Your task to perform on an android device: see creations saved in the google photos Image 0: 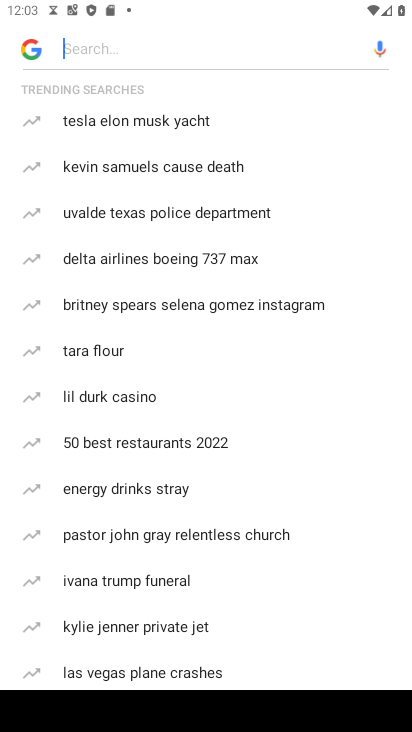
Step 0: press back button
Your task to perform on an android device: see creations saved in the google photos Image 1: 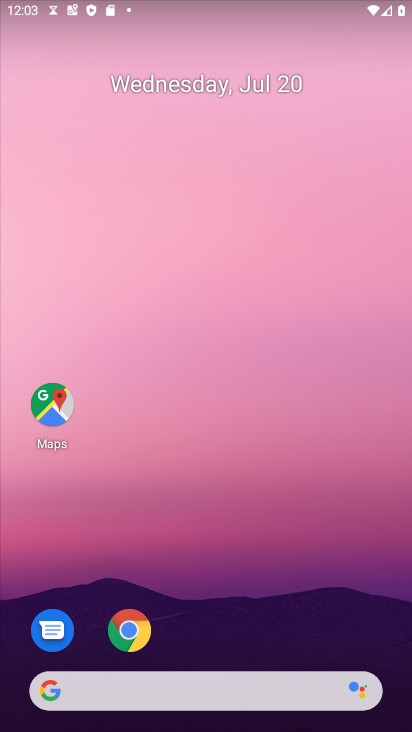
Step 1: click (178, 190)
Your task to perform on an android device: see creations saved in the google photos Image 2: 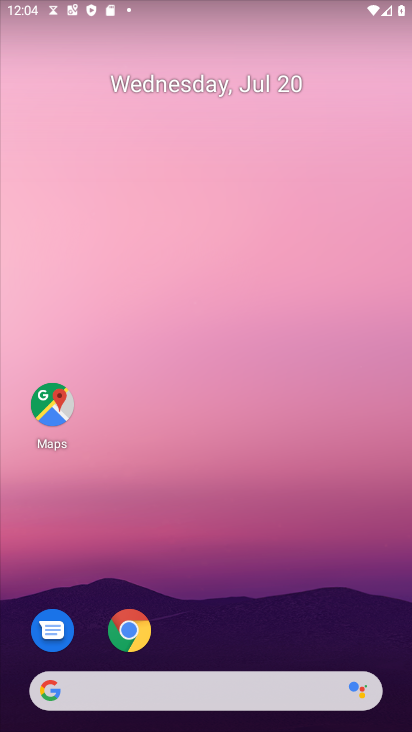
Step 2: drag from (156, 615) to (142, 152)
Your task to perform on an android device: see creations saved in the google photos Image 3: 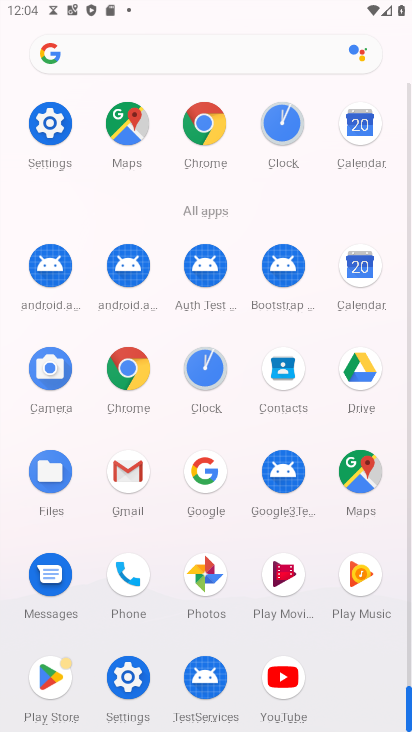
Step 3: click (208, 572)
Your task to perform on an android device: see creations saved in the google photos Image 4: 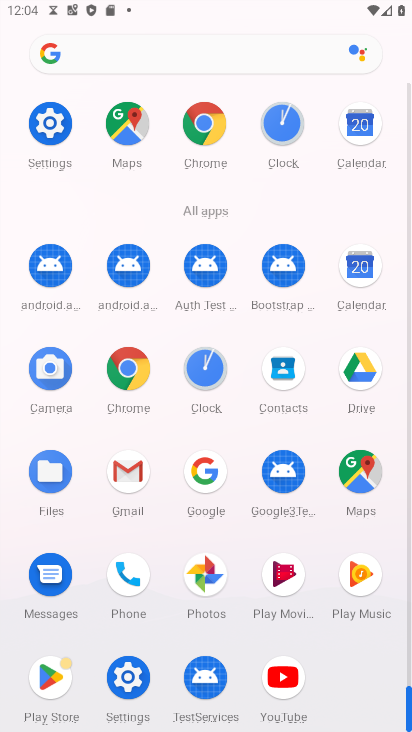
Step 4: click (205, 570)
Your task to perform on an android device: see creations saved in the google photos Image 5: 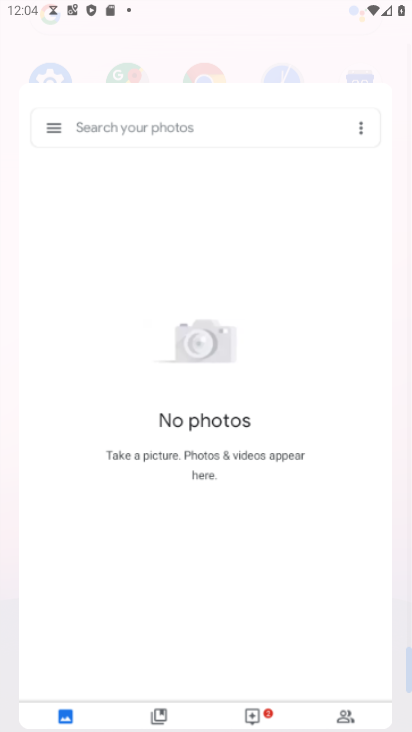
Step 5: click (207, 576)
Your task to perform on an android device: see creations saved in the google photos Image 6: 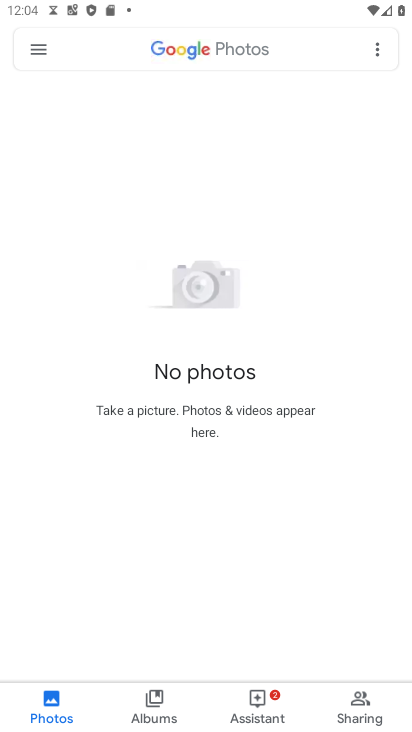
Step 6: click (205, 579)
Your task to perform on an android device: see creations saved in the google photos Image 7: 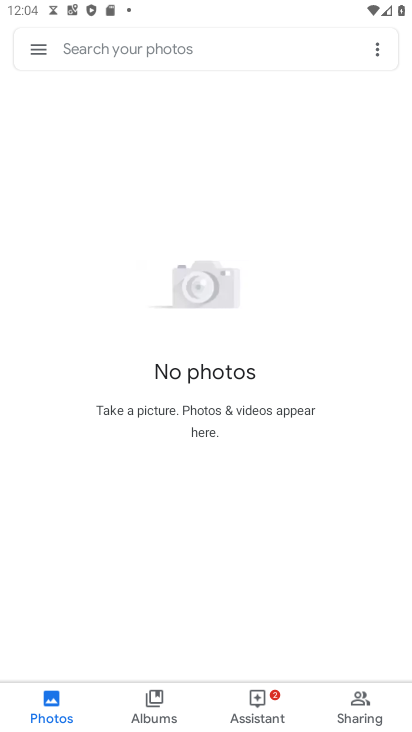
Step 7: click (52, 706)
Your task to perform on an android device: see creations saved in the google photos Image 8: 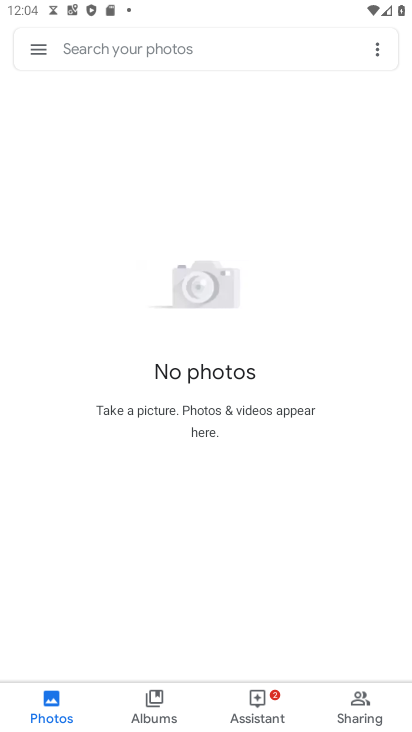
Step 8: task complete